Your task to perform on an android device: change keyboard looks Image 0: 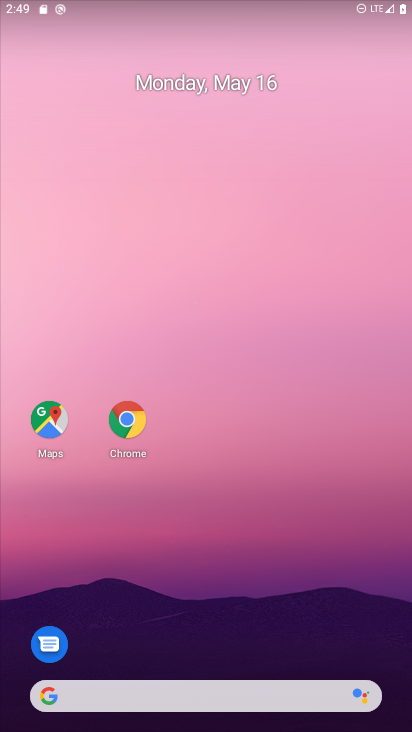
Step 0: drag from (203, 647) to (267, 84)
Your task to perform on an android device: change keyboard looks Image 1: 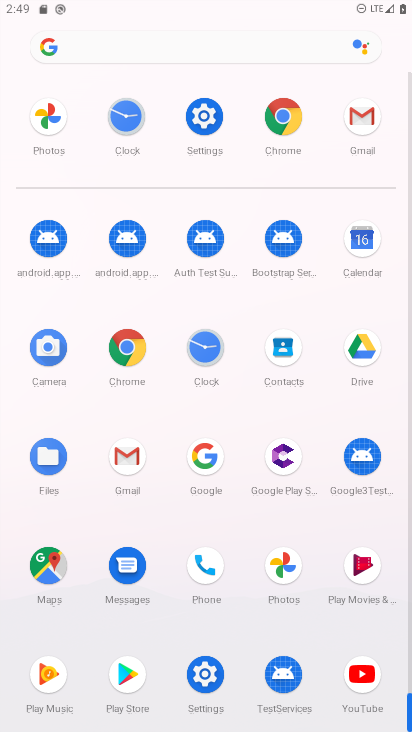
Step 1: click (200, 114)
Your task to perform on an android device: change keyboard looks Image 2: 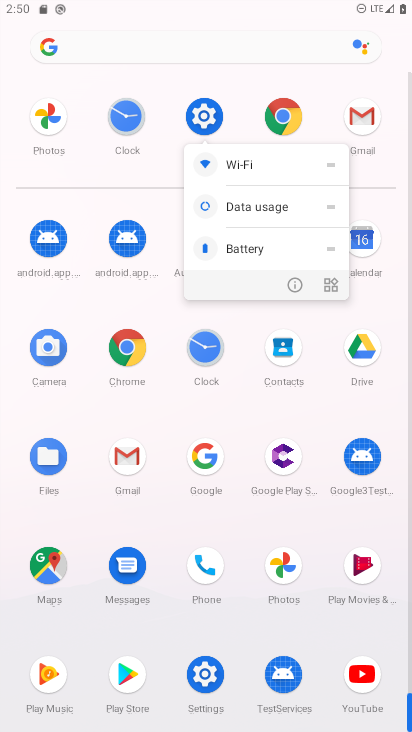
Step 2: click (284, 290)
Your task to perform on an android device: change keyboard looks Image 3: 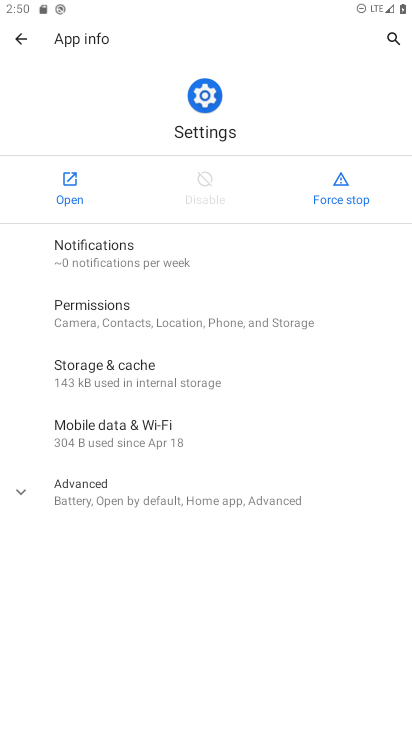
Step 3: click (67, 194)
Your task to perform on an android device: change keyboard looks Image 4: 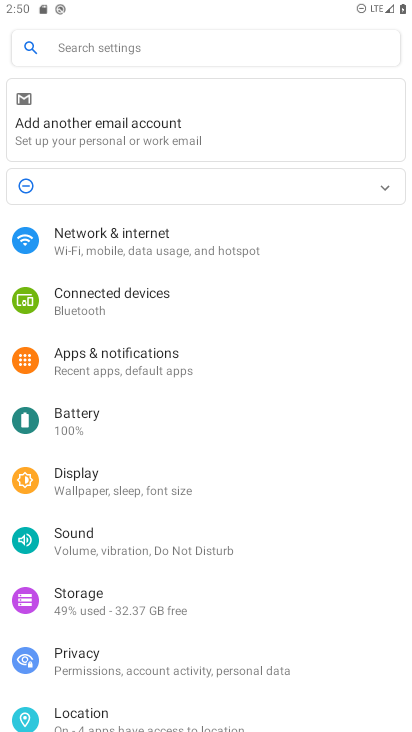
Step 4: drag from (197, 666) to (223, 515)
Your task to perform on an android device: change keyboard looks Image 5: 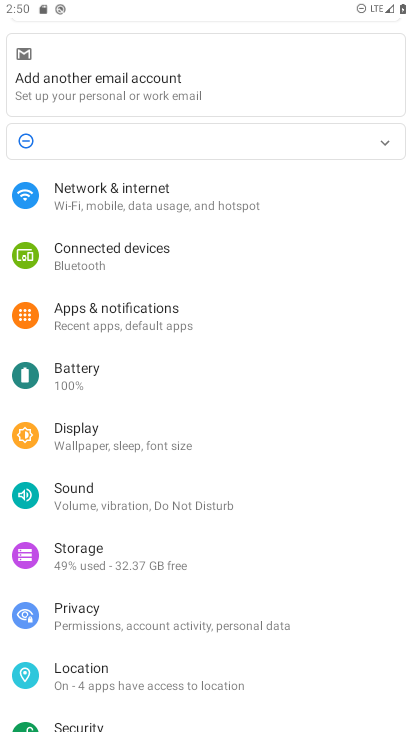
Step 5: drag from (209, 617) to (241, 76)
Your task to perform on an android device: change keyboard looks Image 6: 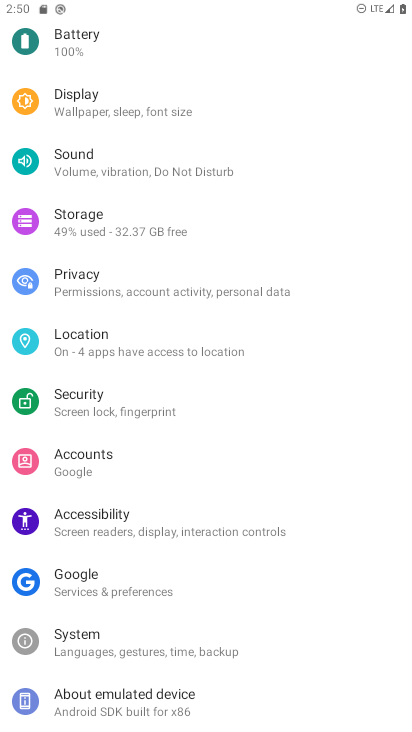
Step 6: click (131, 649)
Your task to perform on an android device: change keyboard looks Image 7: 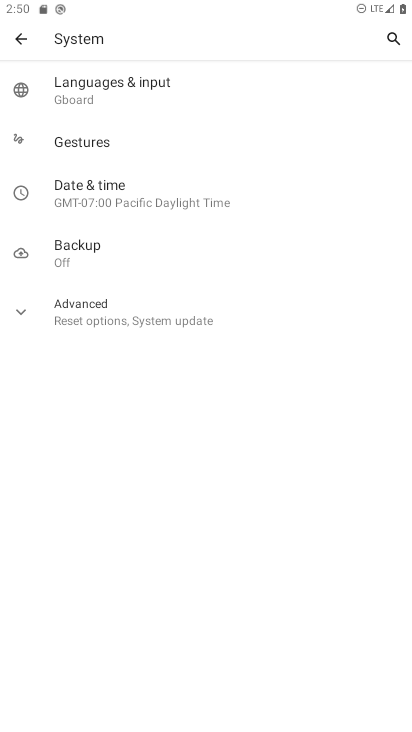
Step 7: click (139, 102)
Your task to perform on an android device: change keyboard looks Image 8: 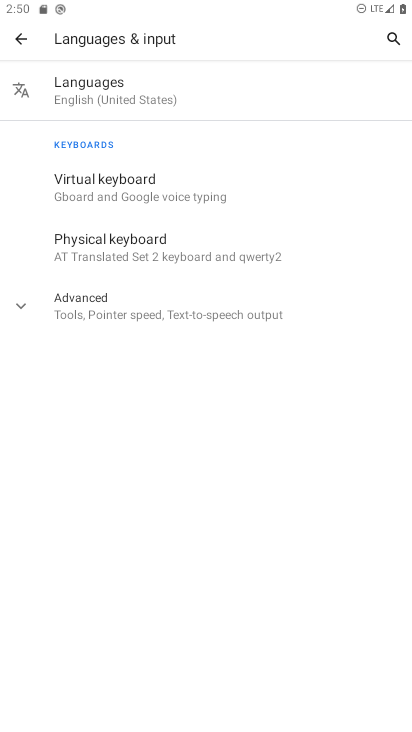
Step 8: click (143, 192)
Your task to perform on an android device: change keyboard looks Image 9: 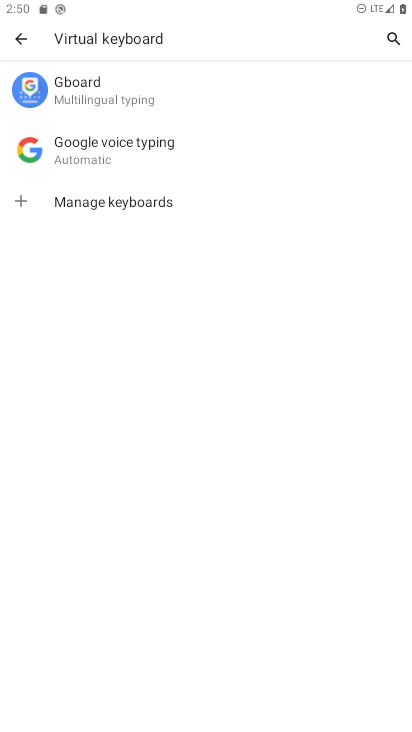
Step 9: click (199, 98)
Your task to perform on an android device: change keyboard looks Image 10: 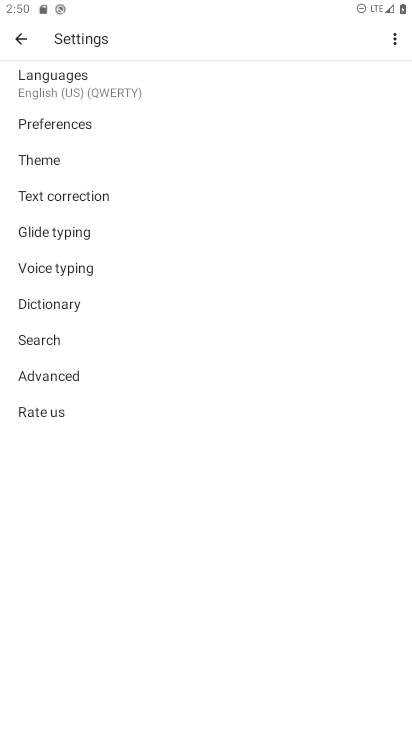
Step 10: click (77, 158)
Your task to perform on an android device: change keyboard looks Image 11: 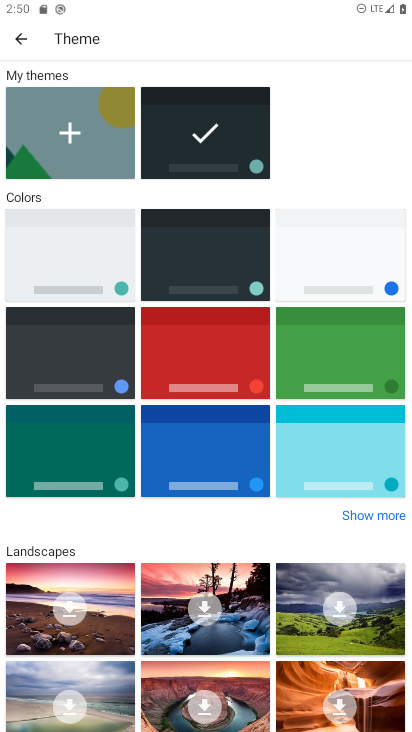
Step 11: click (198, 348)
Your task to perform on an android device: change keyboard looks Image 12: 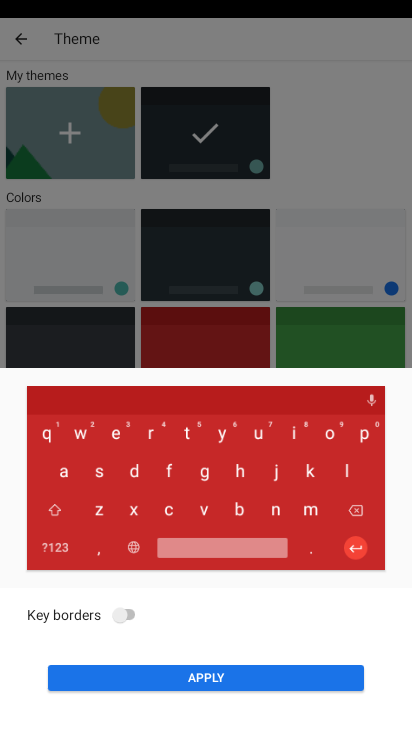
Step 12: click (205, 677)
Your task to perform on an android device: change keyboard looks Image 13: 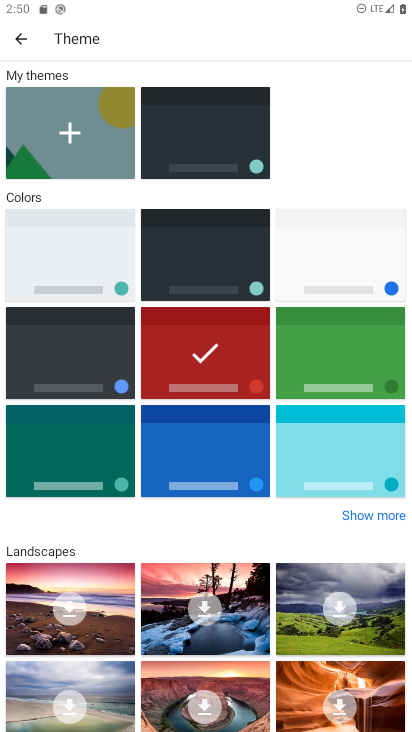
Step 13: task complete